Your task to perform on an android device: Turn on the flashlight Image 0: 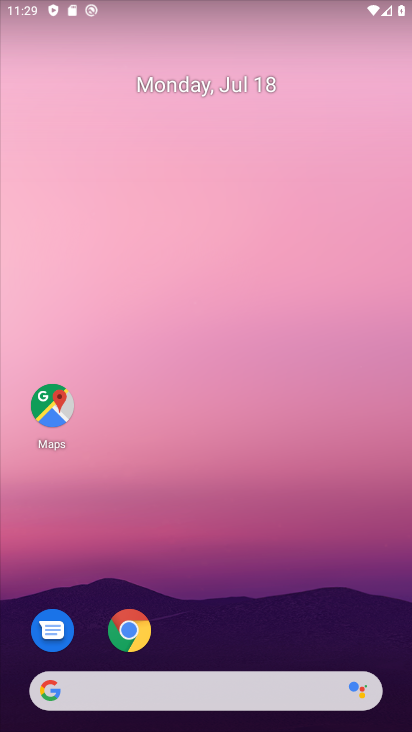
Step 0: drag from (312, 5) to (332, 515)
Your task to perform on an android device: Turn on the flashlight Image 1: 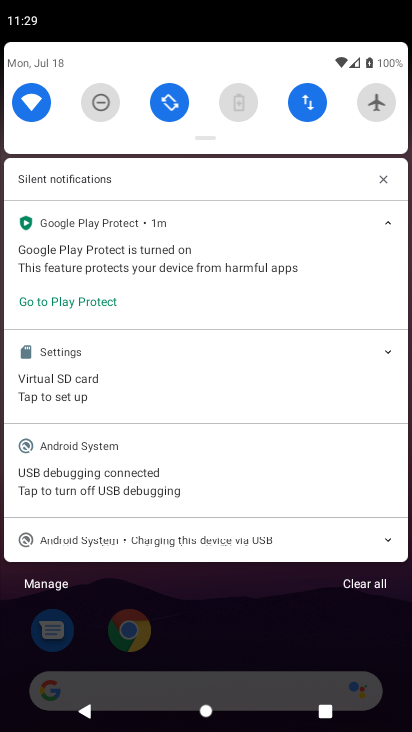
Step 1: drag from (275, 129) to (274, 677)
Your task to perform on an android device: Turn on the flashlight Image 2: 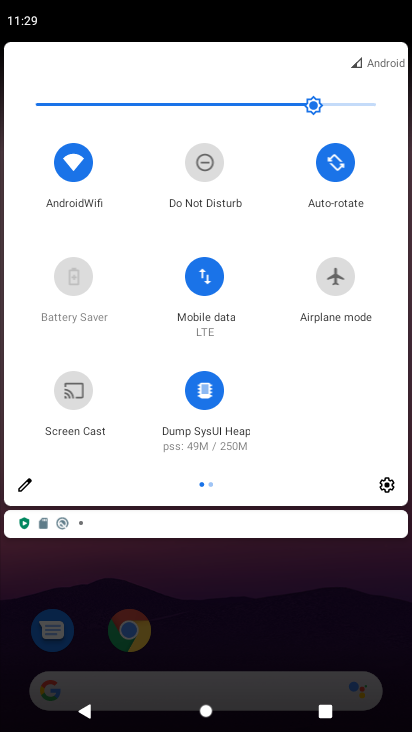
Step 2: click (26, 484)
Your task to perform on an android device: Turn on the flashlight Image 3: 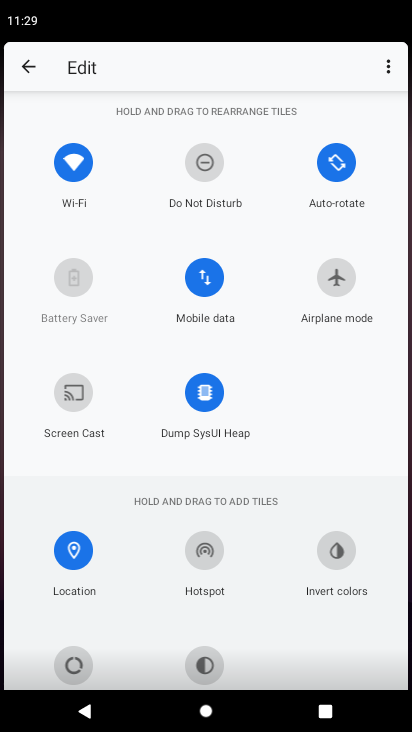
Step 3: task complete